Your task to perform on an android device: Go to privacy settings Image 0: 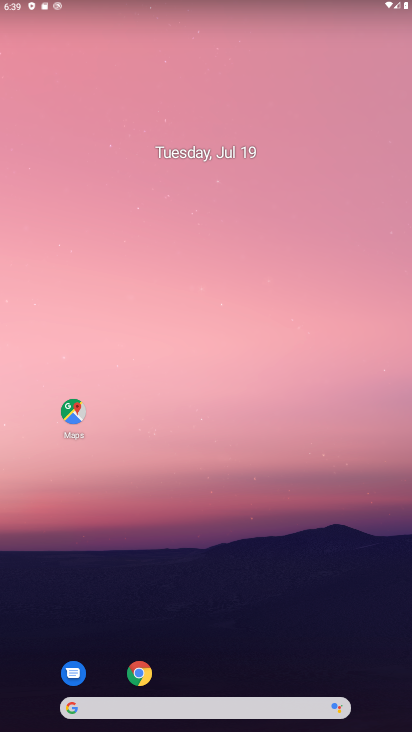
Step 0: drag from (370, 648) to (189, 39)
Your task to perform on an android device: Go to privacy settings Image 1: 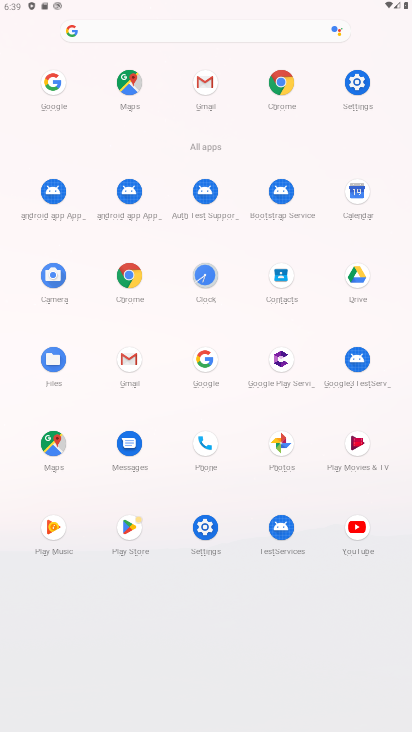
Step 1: click (212, 528)
Your task to perform on an android device: Go to privacy settings Image 2: 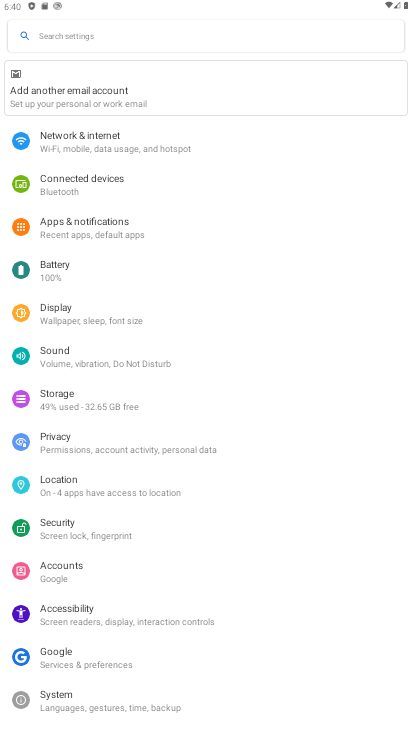
Step 2: click (48, 442)
Your task to perform on an android device: Go to privacy settings Image 3: 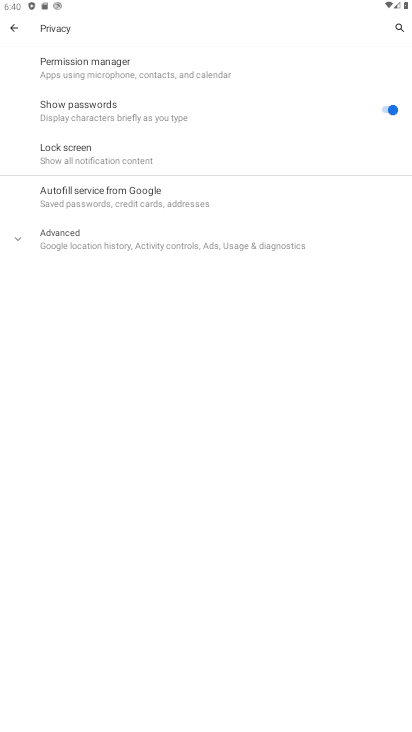
Step 3: task complete